Your task to perform on an android device: open wifi settings Image 0: 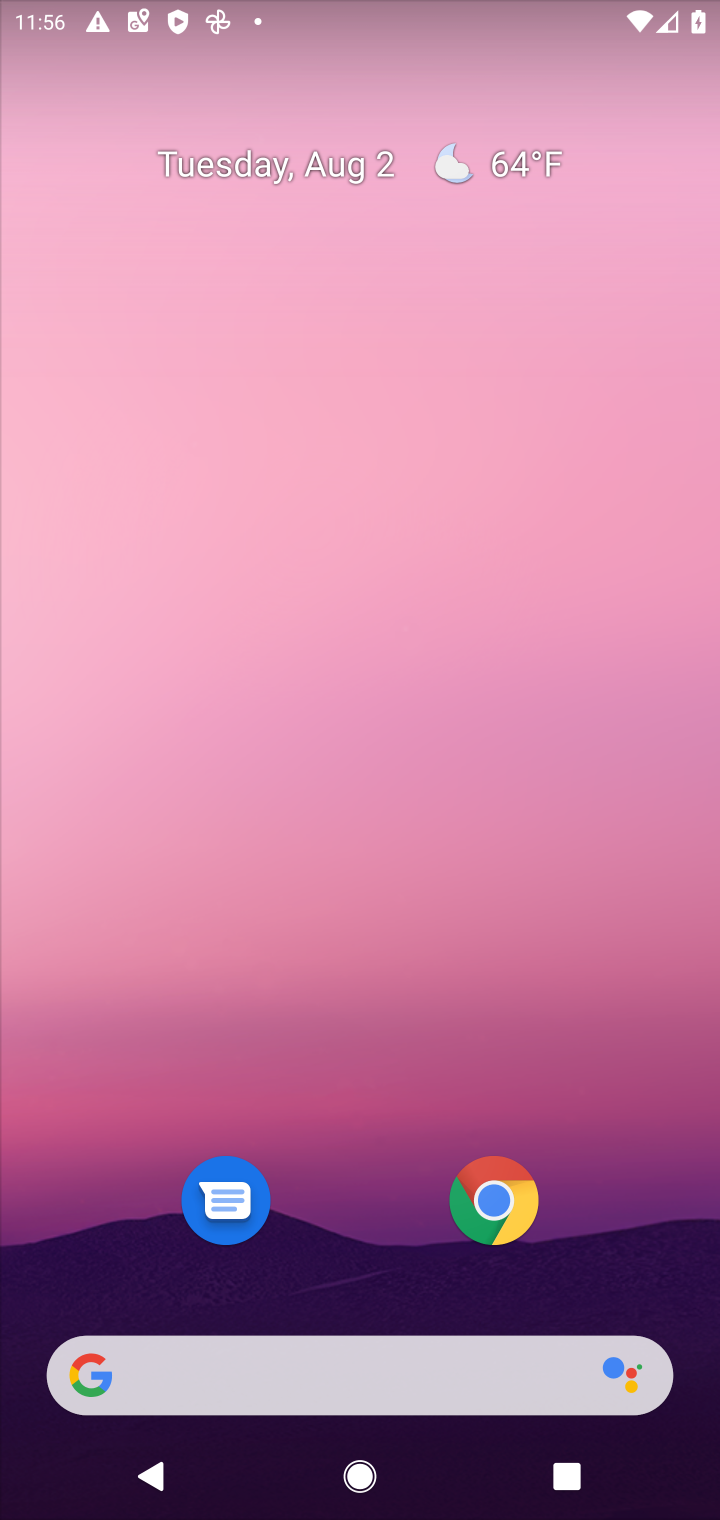
Step 0: drag from (636, 1238) to (604, 190)
Your task to perform on an android device: open wifi settings Image 1: 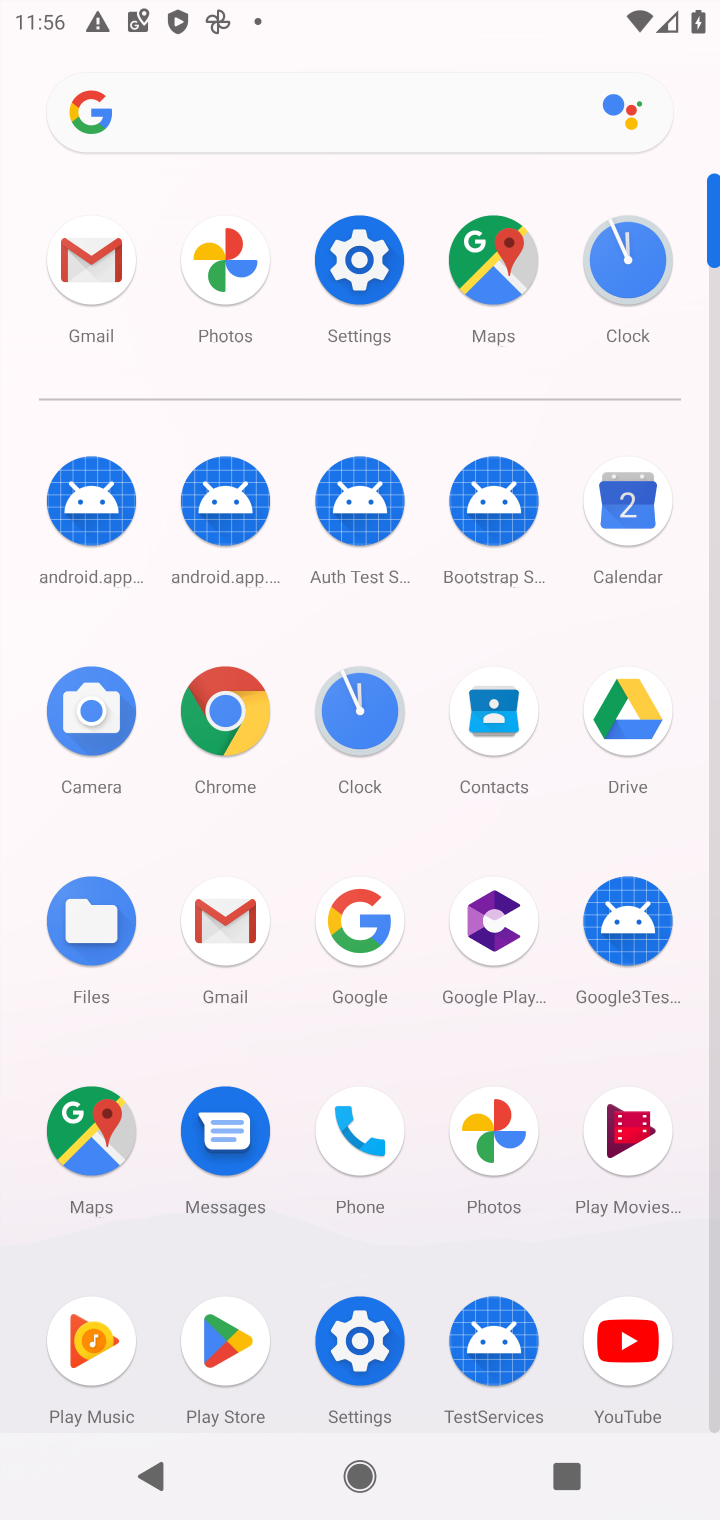
Step 1: click (363, 1346)
Your task to perform on an android device: open wifi settings Image 2: 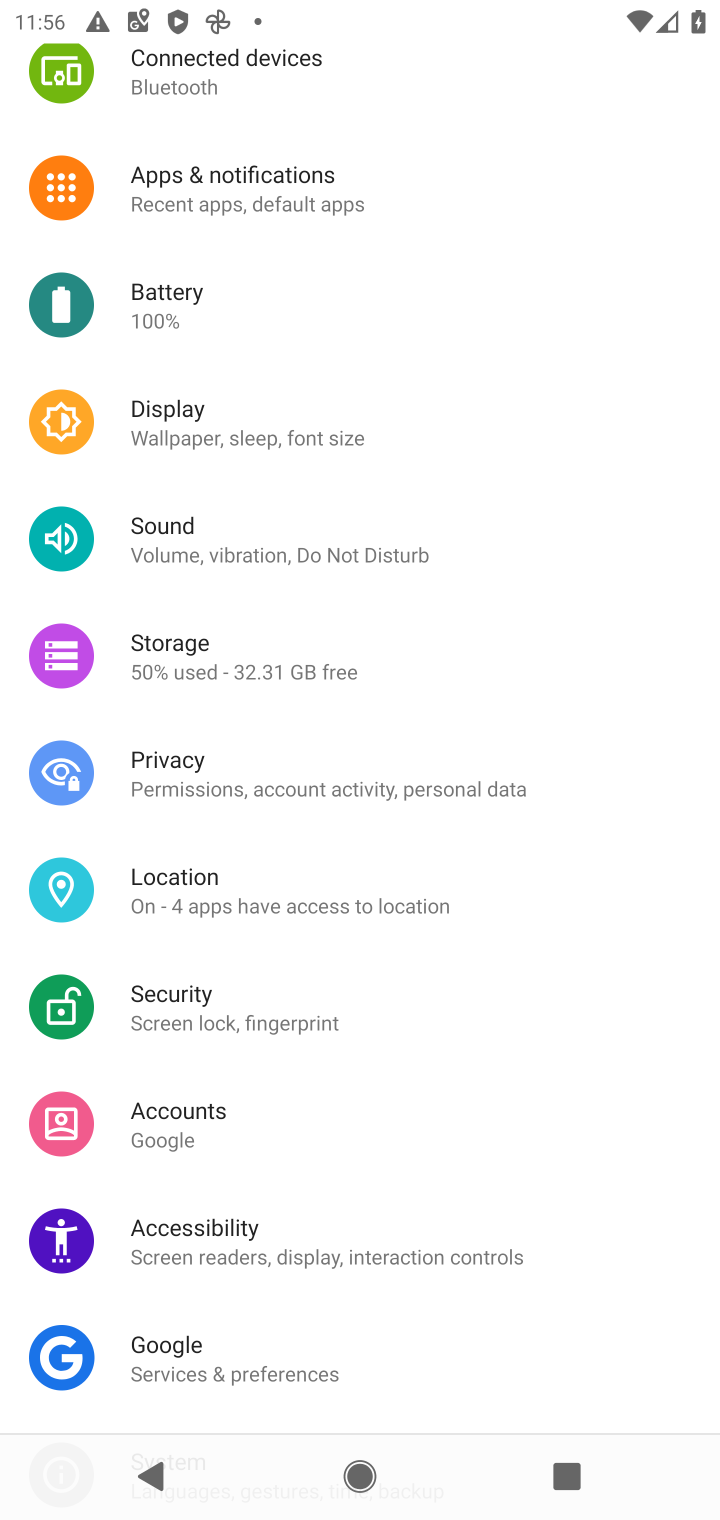
Step 2: drag from (530, 282) to (514, 771)
Your task to perform on an android device: open wifi settings Image 3: 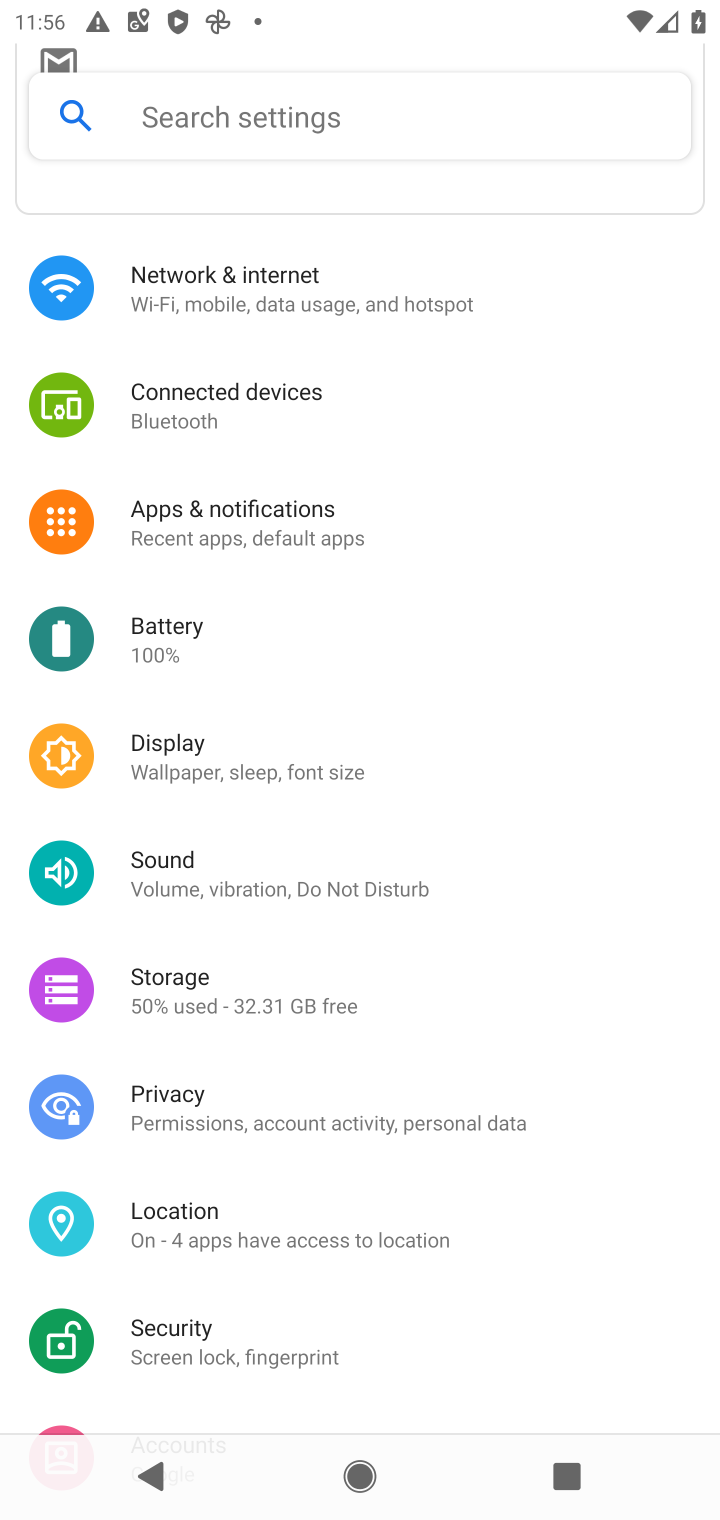
Step 3: click (198, 268)
Your task to perform on an android device: open wifi settings Image 4: 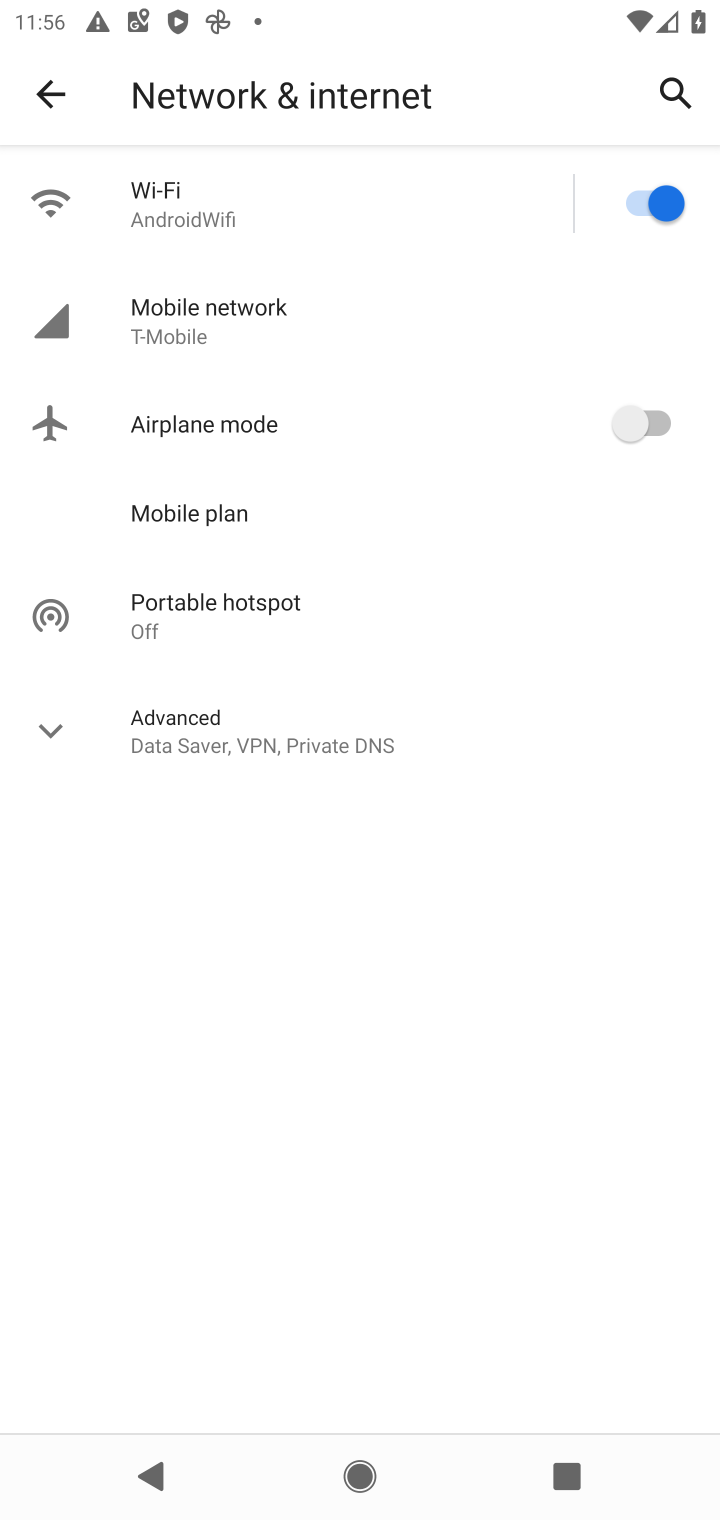
Step 4: click (166, 198)
Your task to perform on an android device: open wifi settings Image 5: 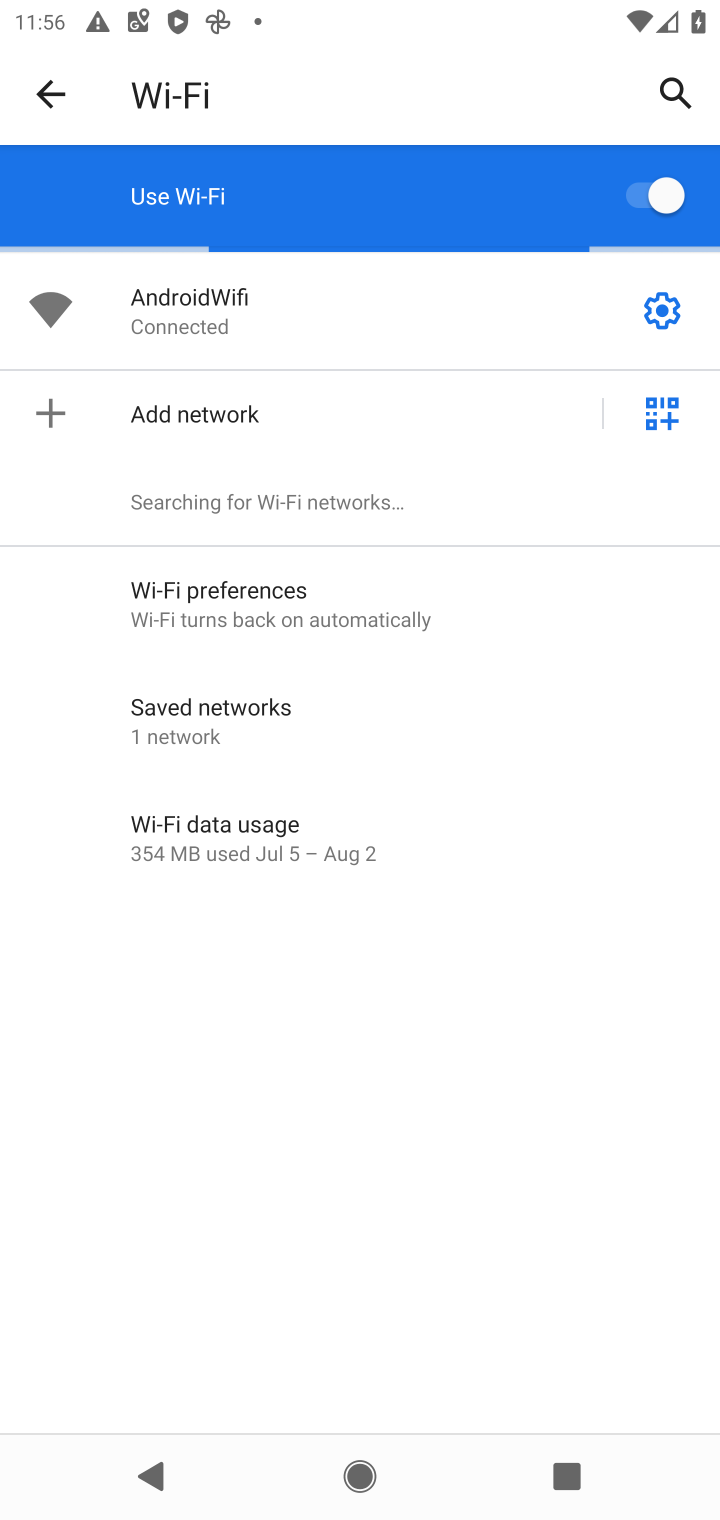
Step 5: task complete